Your task to perform on an android device: Open Youtube and go to "Your channel" Image 0: 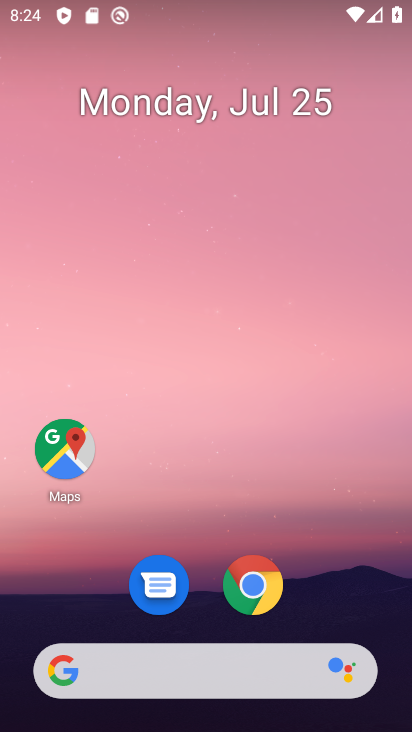
Step 0: drag from (223, 676) to (356, 133)
Your task to perform on an android device: Open Youtube and go to "Your channel" Image 1: 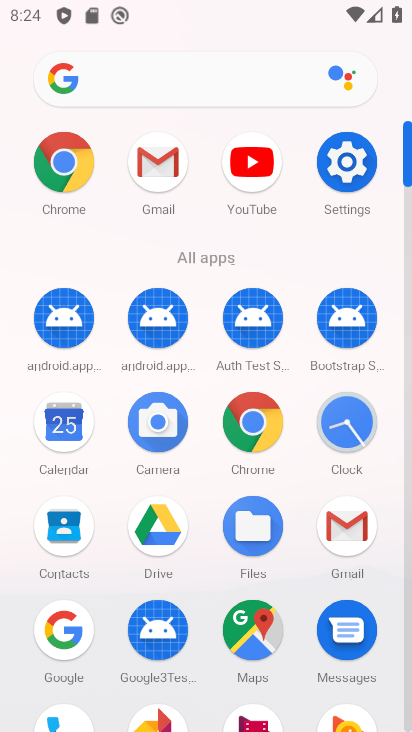
Step 1: drag from (307, 608) to (311, 160)
Your task to perform on an android device: Open Youtube and go to "Your channel" Image 2: 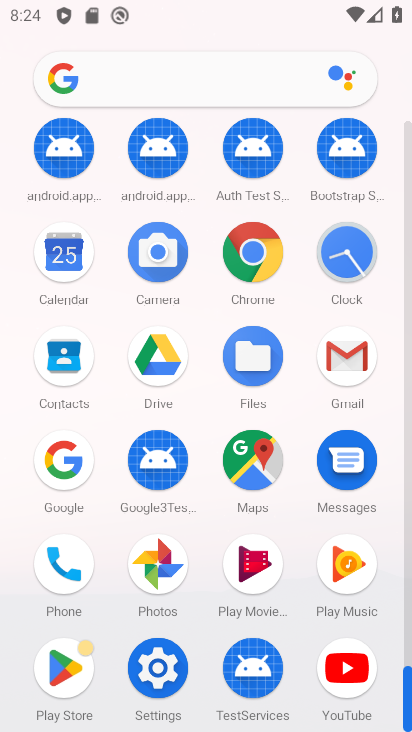
Step 2: click (349, 677)
Your task to perform on an android device: Open Youtube and go to "Your channel" Image 3: 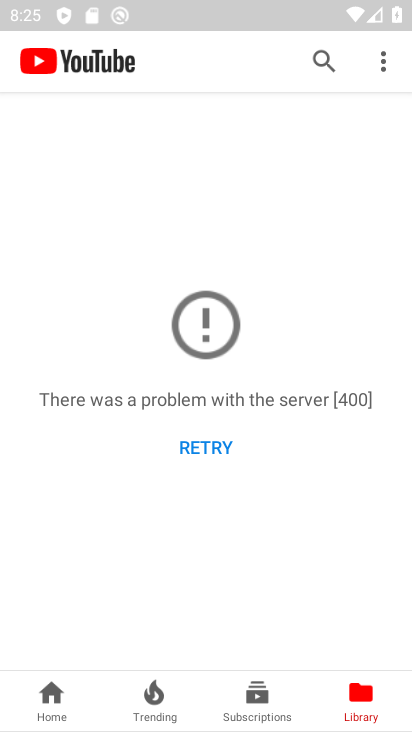
Step 3: click (204, 446)
Your task to perform on an android device: Open Youtube and go to "Your channel" Image 4: 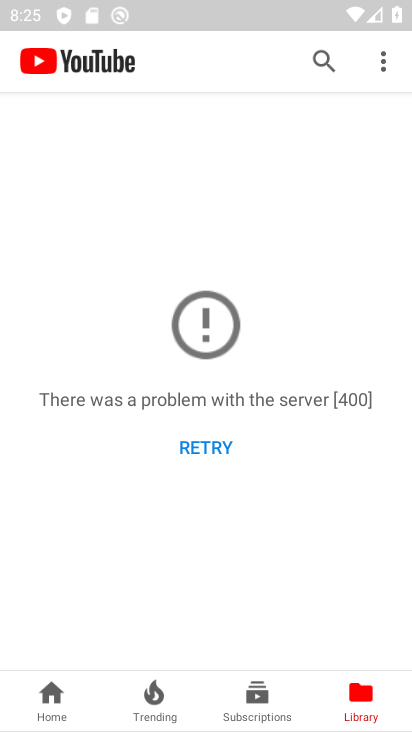
Step 4: click (204, 445)
Your task to perform on an android device: Open Youtube and go to "Your channel" Image 5: 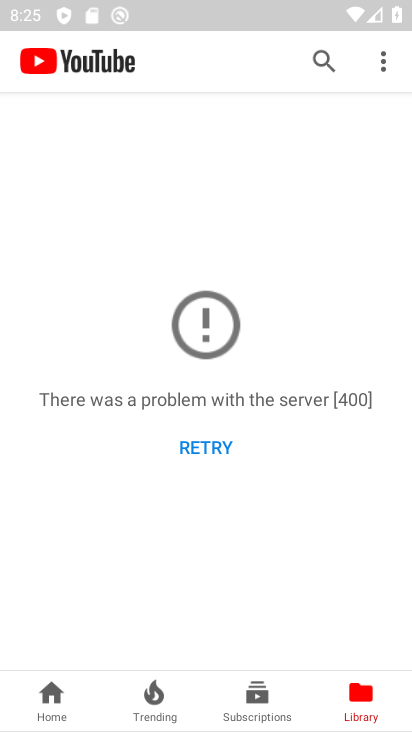
Step 5: task complete